Your task to perform on an android device: What's on my calendar for the rest of the month? Image 0: 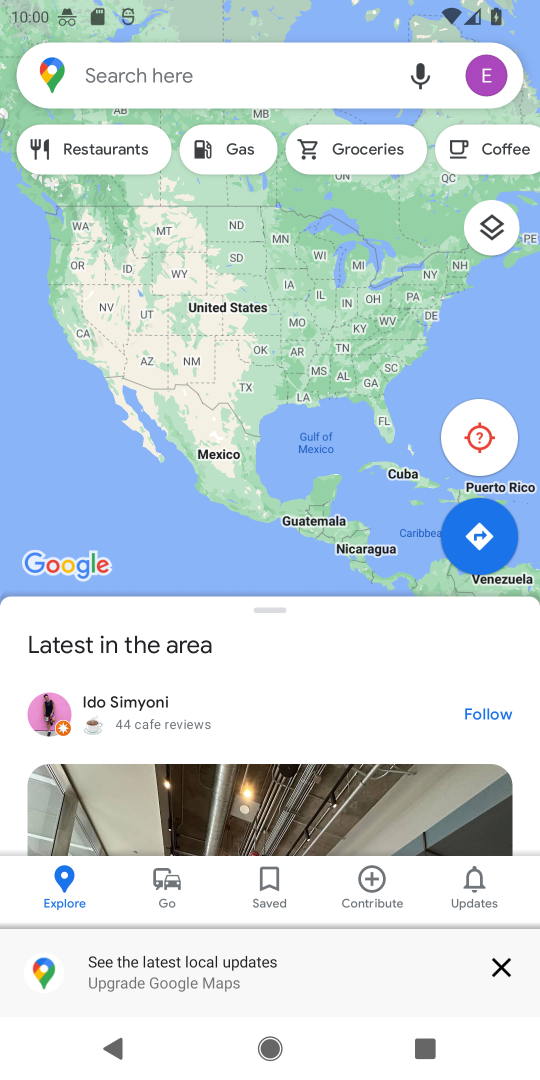
Step 0: press home button
Your task to perform on an android device: What's on my calendar for the rest of the month? Image 1: 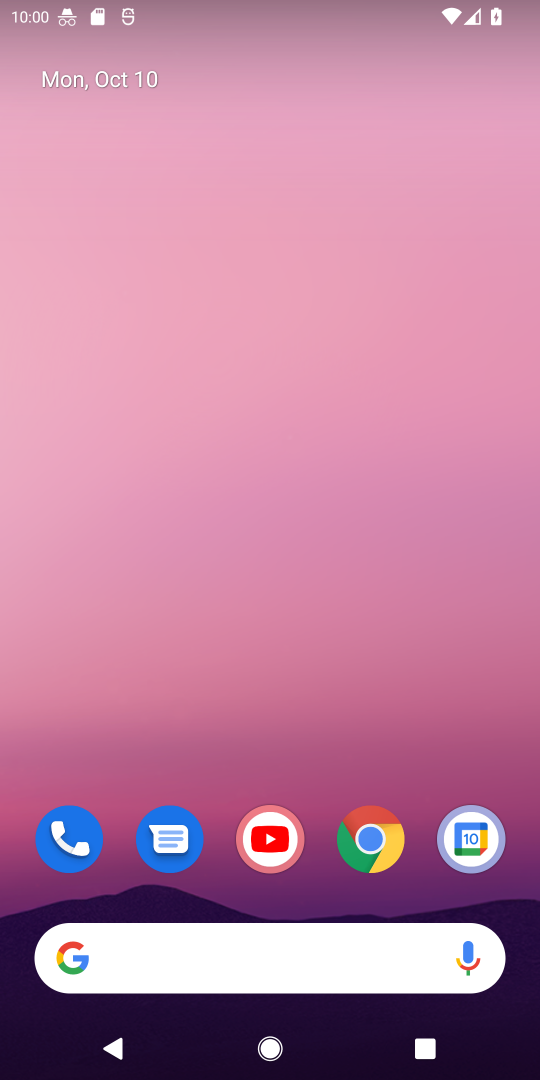
Step 1: drag from (328, 861) to (378, 14)
Your task to perform on an android device: What's on my calendar for the rest of the month? Image 2: 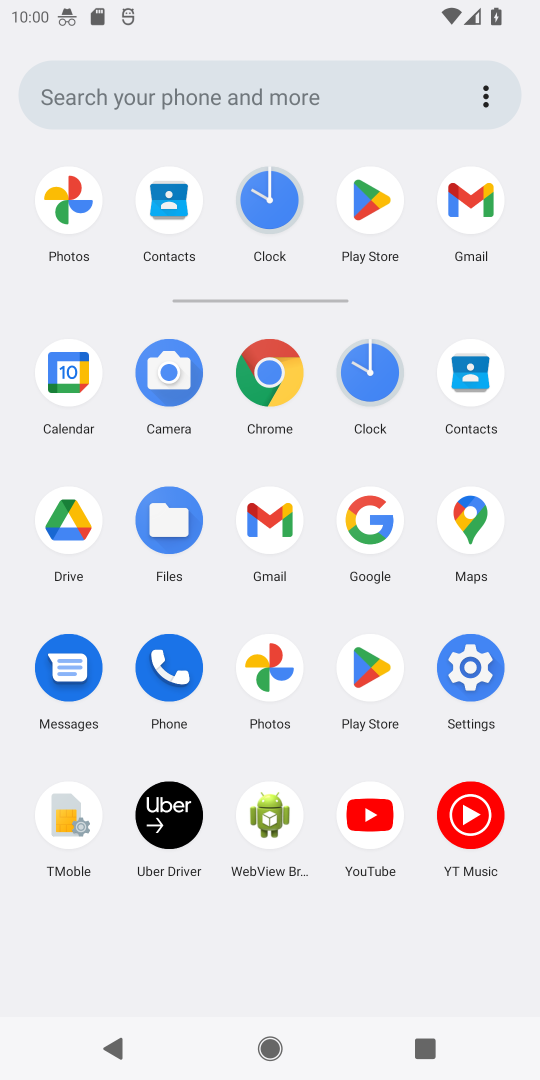
Step 2: click (86, 363)
Your task to perform on an android device: What's on my calendar for the rest of the month? Image 3: 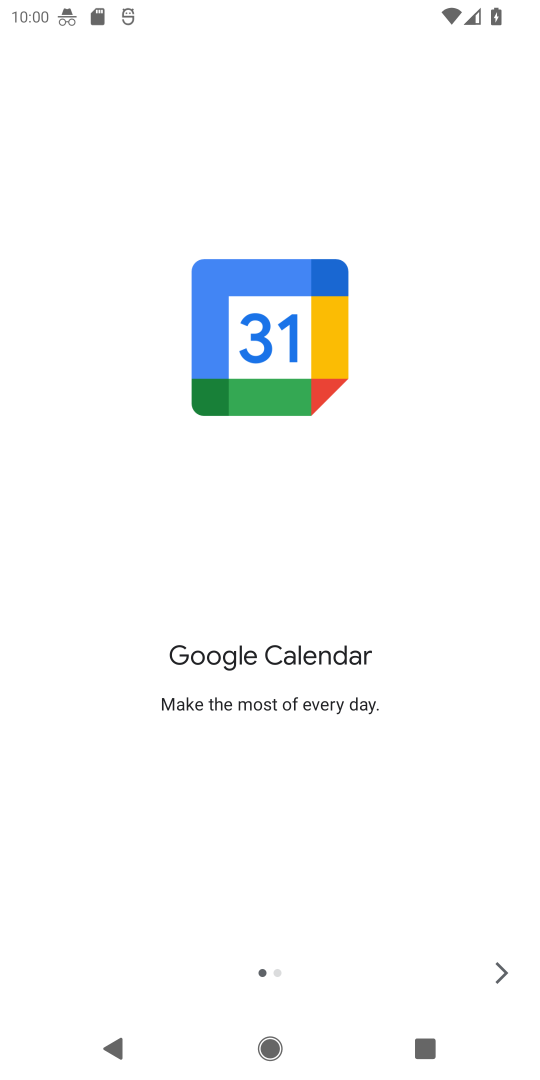
Step 3: click (512, 979)
Your task to perform on an android device: What's on my calendar for the rest of the month? Image 4: 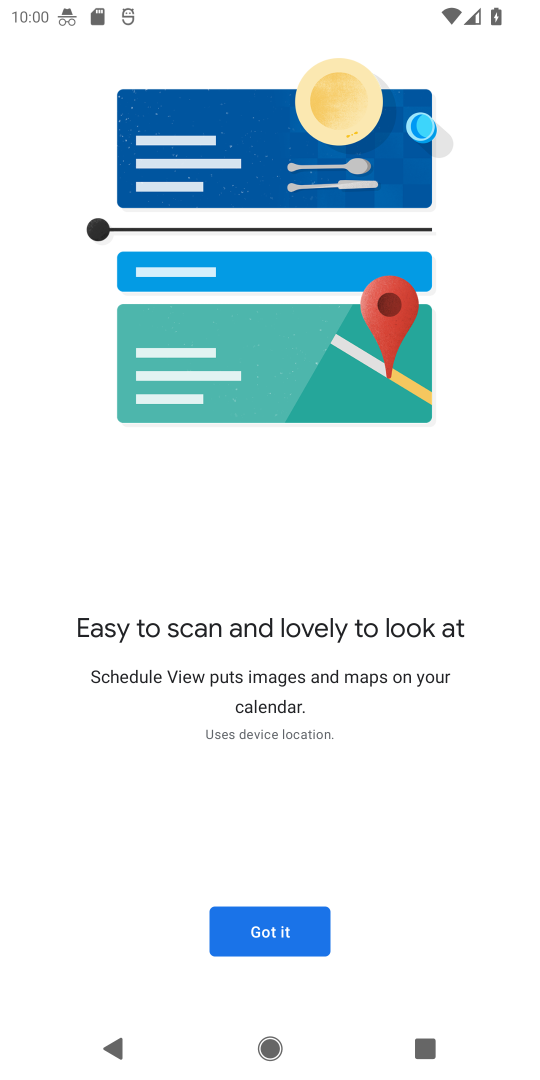
Step 4: click (293, 939)
Your task to perform on an android device: What's on my calendar for the rest of the month? Image 5: 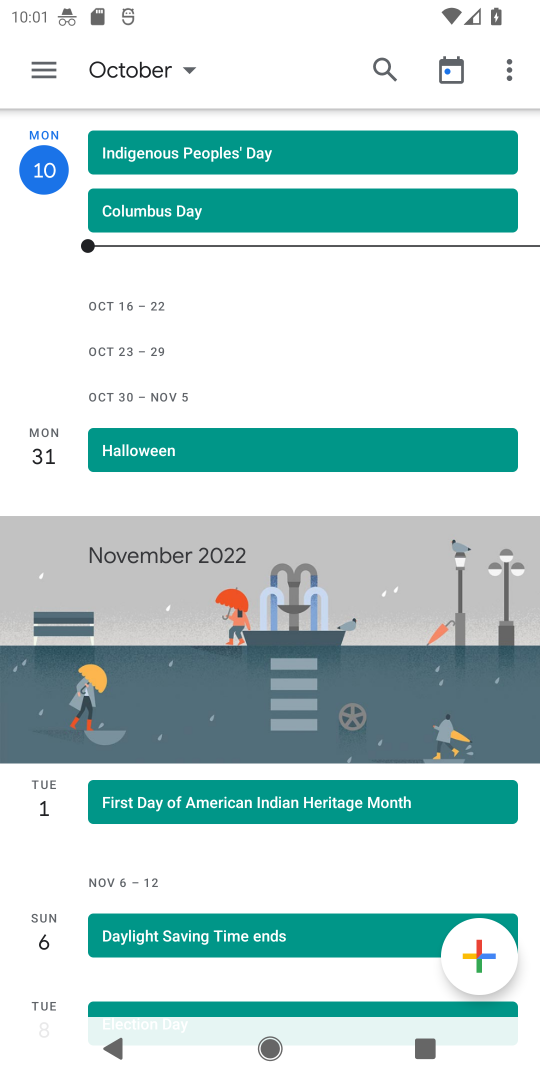
Step 5: click (37, 59)
Your task to perform on an android device: What's on my calendar for the rest of the month? Image 6: 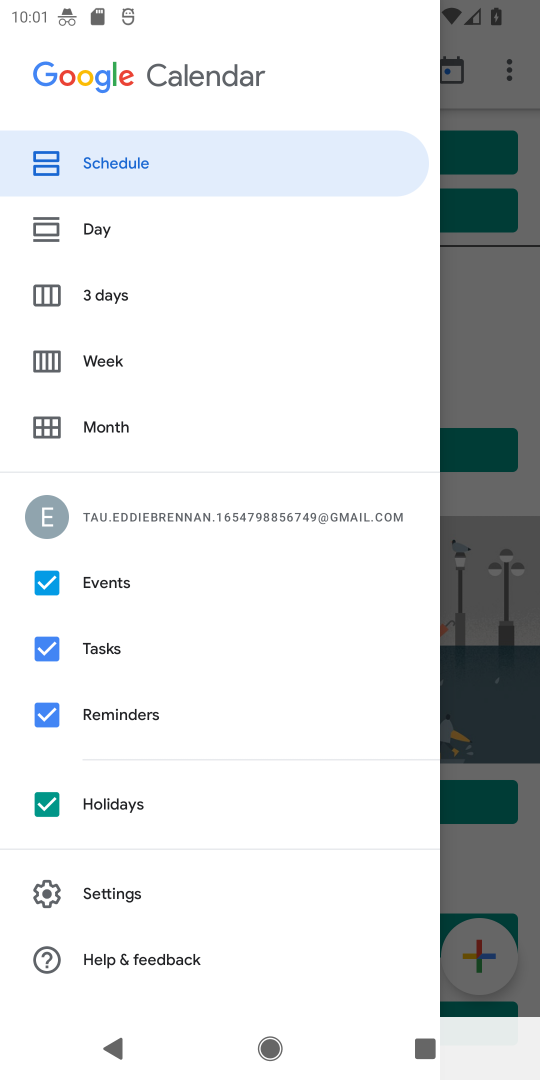
Step 6: click (112, 430)
Your task to perform on an android device: What's on my calendar for the rest of the month? Image 7: 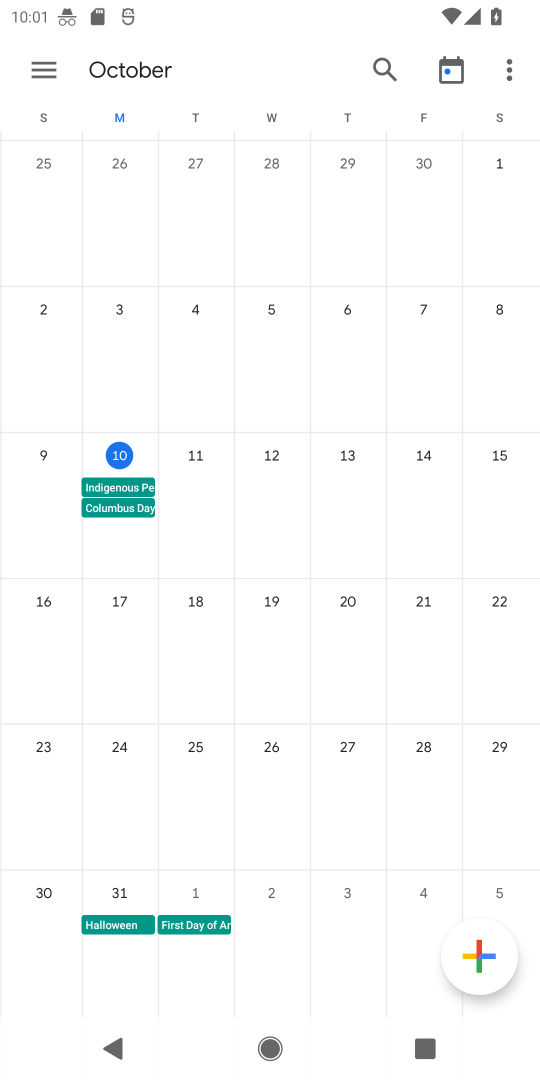
Step 7: task complete